Your task to perform on an android device: Go to eBay Image 0: 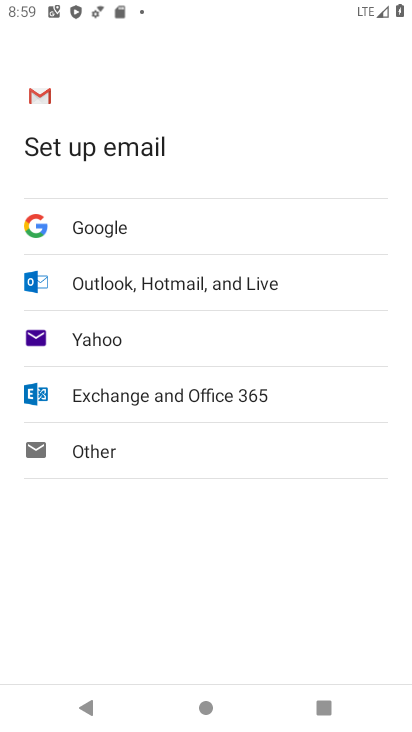
Step 0: press home button
Your task to perform on an android device: Go to eBay Image 1: 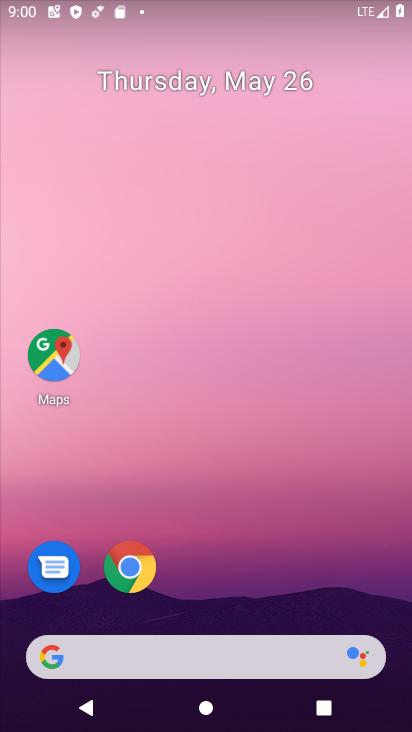
Step 1: click (296, 655)
Your task to perform on an android device: Go to eBay Image 2: 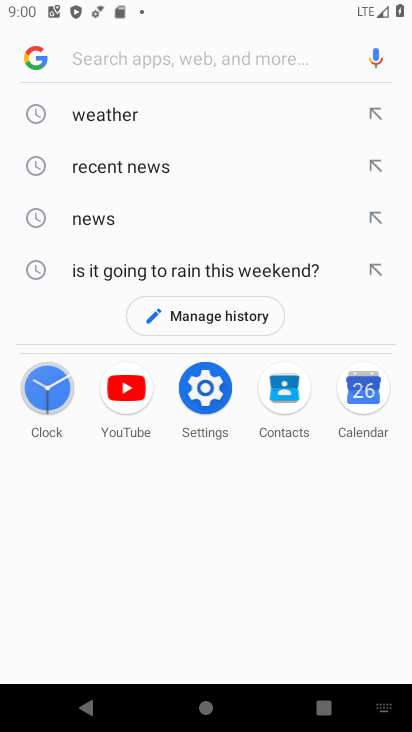
Step 2: type "ebay"
Your task to perform on an android device: Go to eBay Image 3: 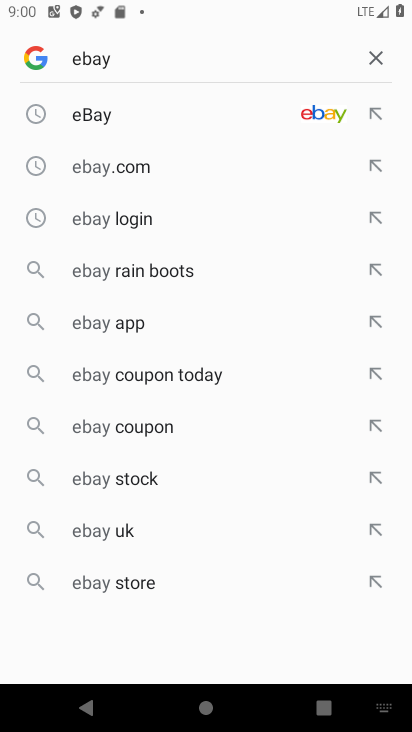
Step 3: click (306, 105)
Your task to perform on an android device: Go to eBay Image 4: 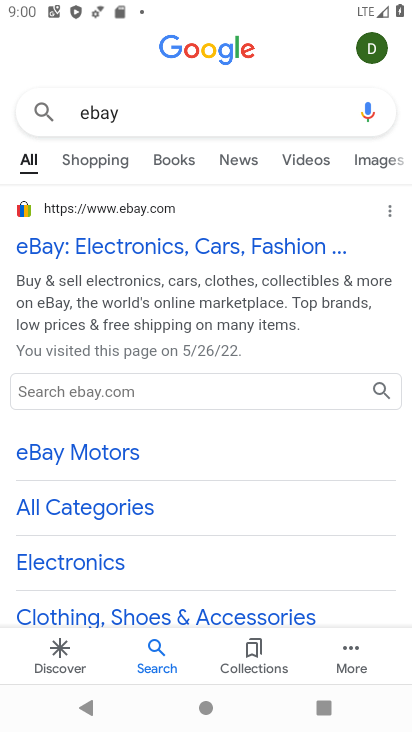
Step 4: click (122, 205)
Your task to perform on an android device: Go to eBay Image 5: 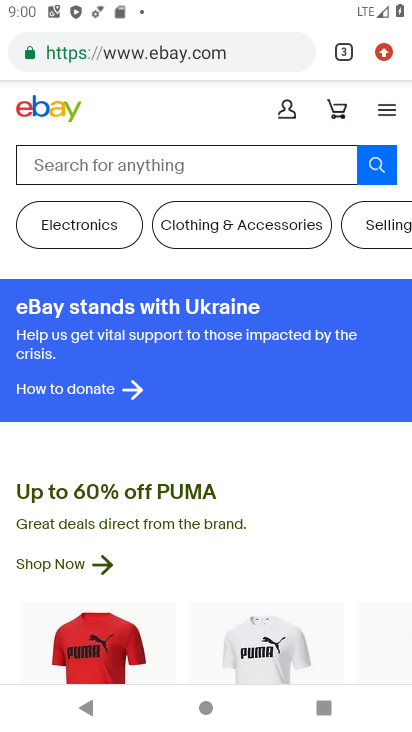
Step 5: task complete